Your task to perform on an android device: turn off airplane mode Image 0: 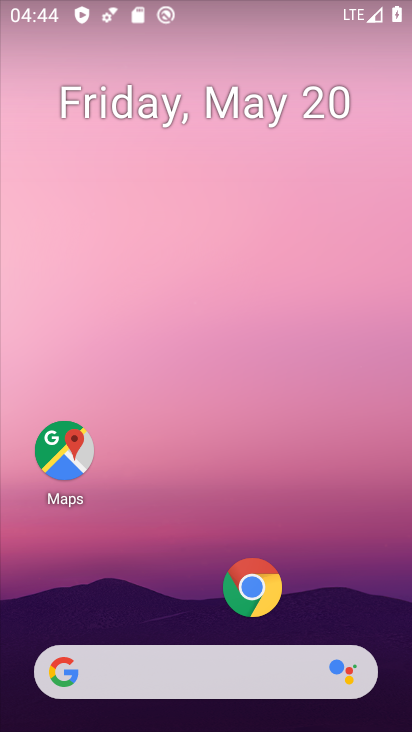
Step 0: click (239, 502)
Your task to perform on an android device: turn off airplane mode Image 1: 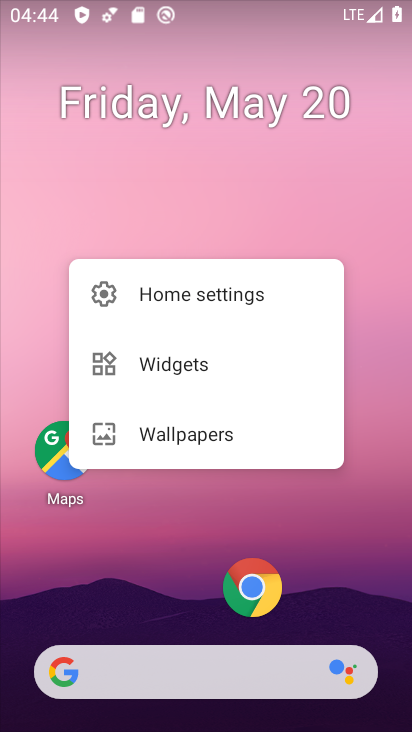
Step 1: task complete